Your task to perform on an android device: open wifi settings Image 0: 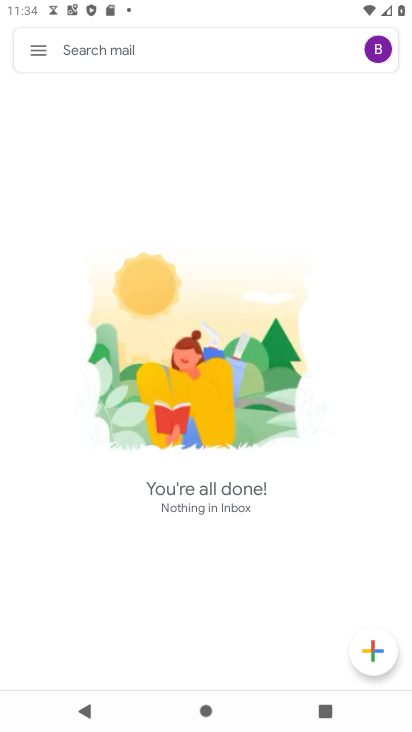
Step 0: press home button
Your task to perform on an android device: open wifi settings Image 1: 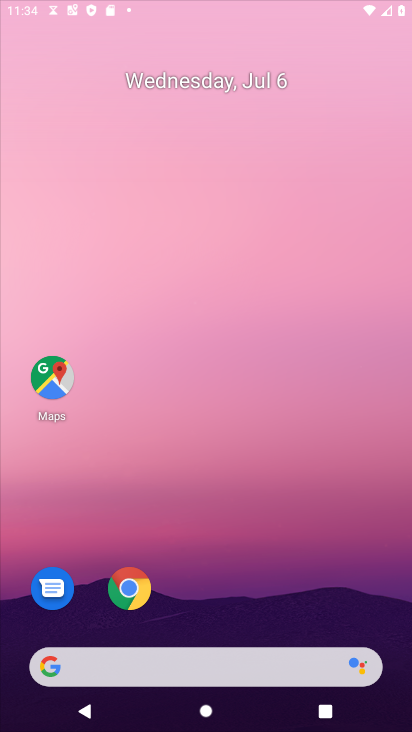
Step 1: drag from (148, 617) to (181, 244)
Your task to perform on an android device: open wifi settings Image 2: 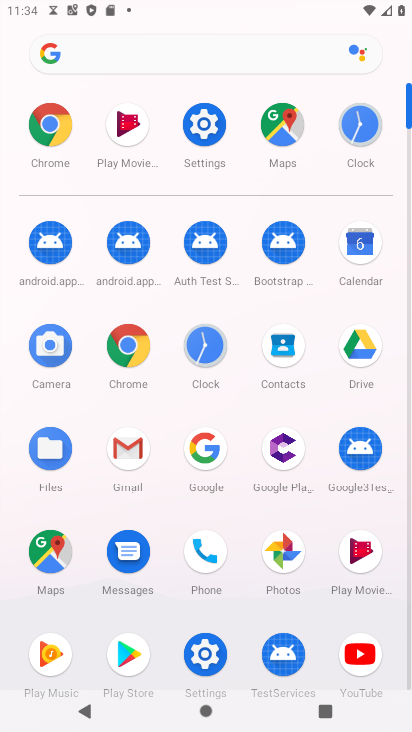
Step 2: click (198, 120)
Your task to perform on an android device: open wifi settings Image 3: 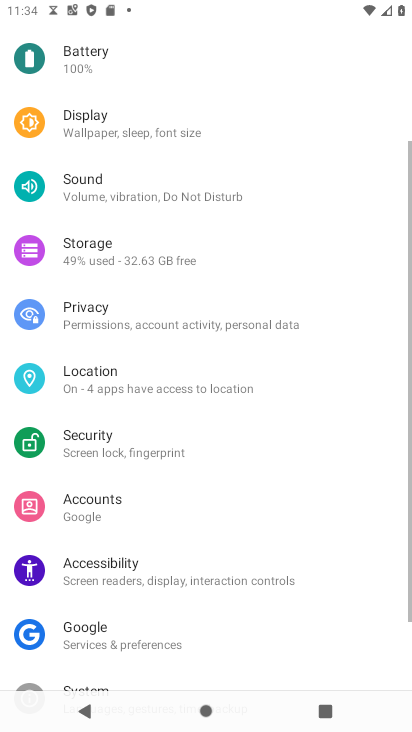
Step 3: drag from (167, 121) to (177, 593)
Your task to perform on an android device: open wifi settings Image 4: 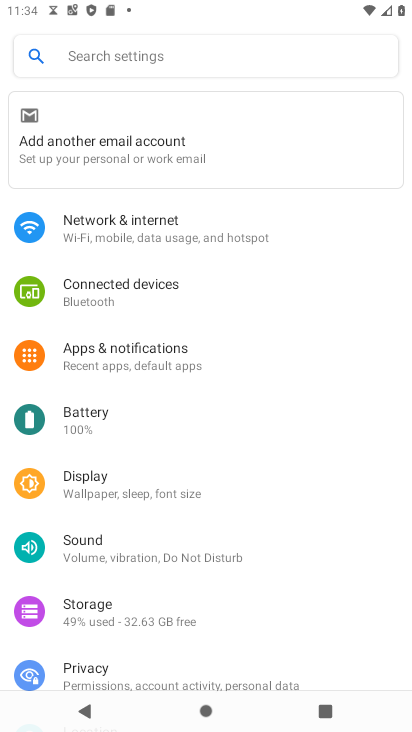
Step 4: click (138, 216)
Your task to perform on an android device: open wifi settings Image 5: 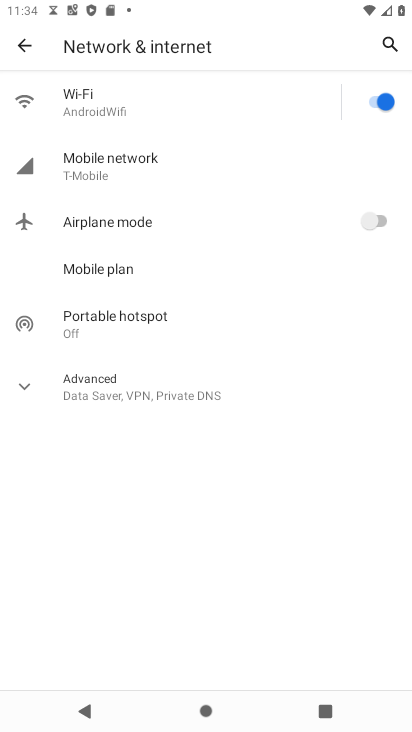
Step 5: click (124, 100)
Your task to perform on an android device: open wifi settings Image 6: 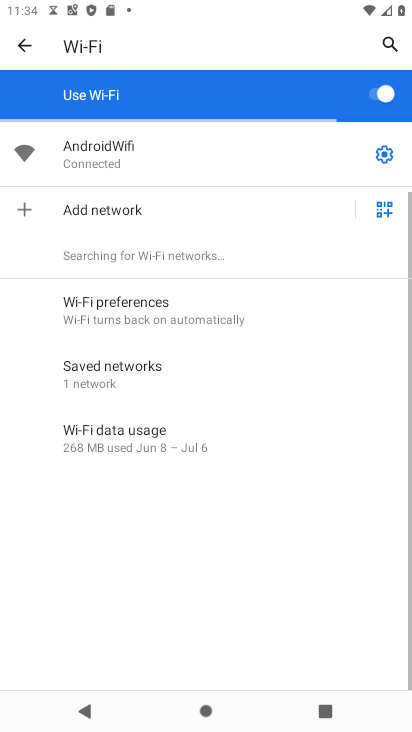
Step 6: task complete